Your task to perform on an android device: Play the last video I watched on Youtube Image 0: 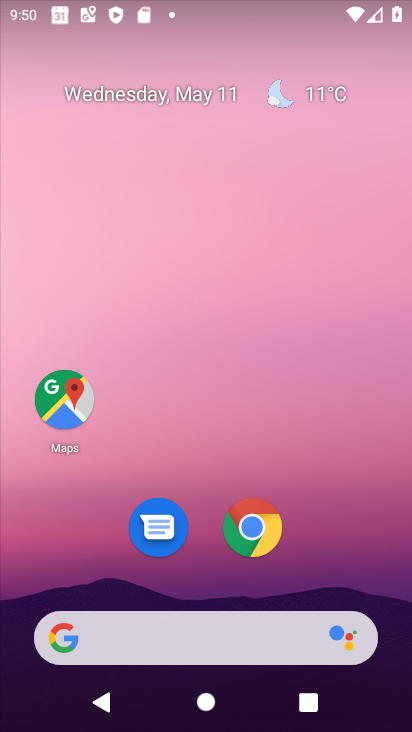
Step 0: drag from (356, 563) to (367, 87)
Your task to perform on an android device: Play the last video I watched on Youtube Image 1: 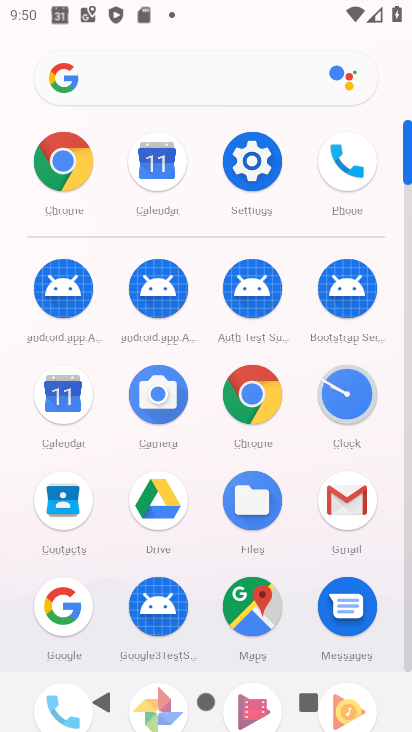
Step 1: drag from (384, 496) to (404, 378)
Your task to perform on an android device: Play the last video I watched on Youtube Image 2: 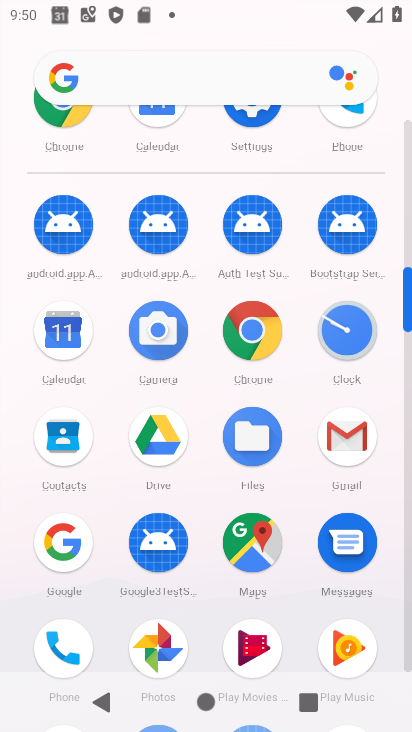
Step 2: drag from (380, 631) to (360, 225)
Your task to perform on an android device: Play the last video I watched on Youtube Image 3: 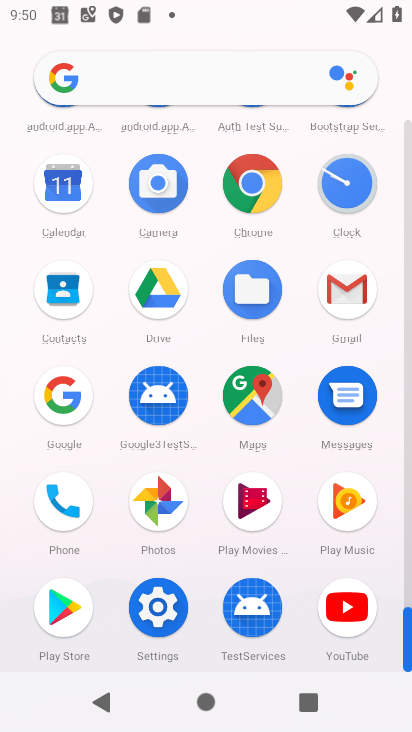
Step 3: click (342, 599)
Your task to perform on an android device: Play the last video I watched on Youtube Image 4: 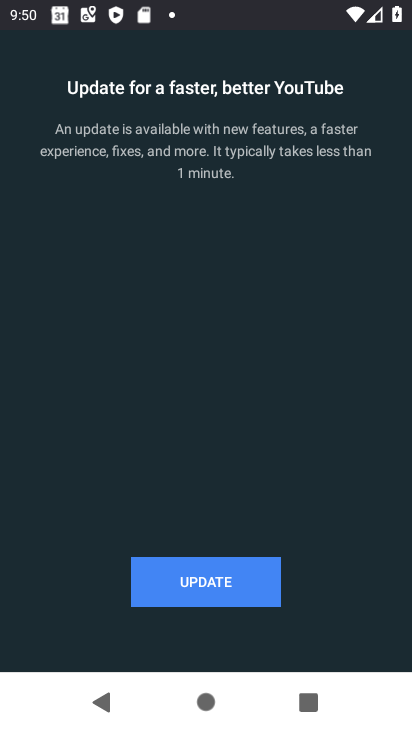
Step 4: click (179, 595)
Your task to perform on an android device: Play the last video I watched on Youtube Image 5: 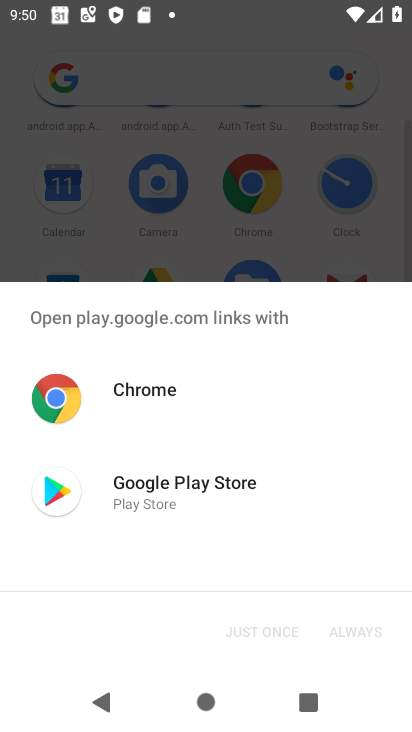
Step 5: click (129, 483)
Your task to perform on an android device: Play the last video I watched on Youtube Image 6: 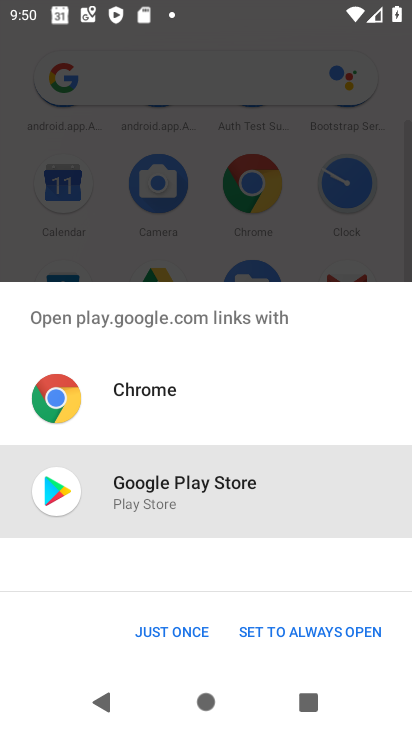
Step 6: click (169, 637)
Your task to perform on an android device: Play the last video I watched on Youtube Image 7: 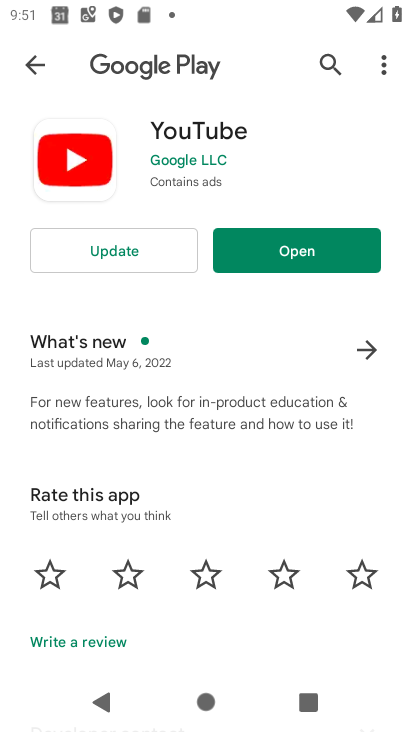
Step 7: click (142, 264)
Your task to perform on an android device: Play the last video I watched on Youtube Image 8: 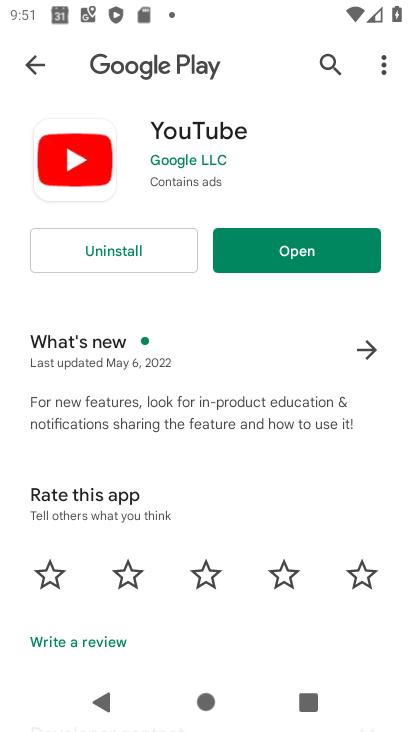
Step 8: click (320, 253)
Your task to perform on an android device: Play the last video I watched on Youtube Image 9: 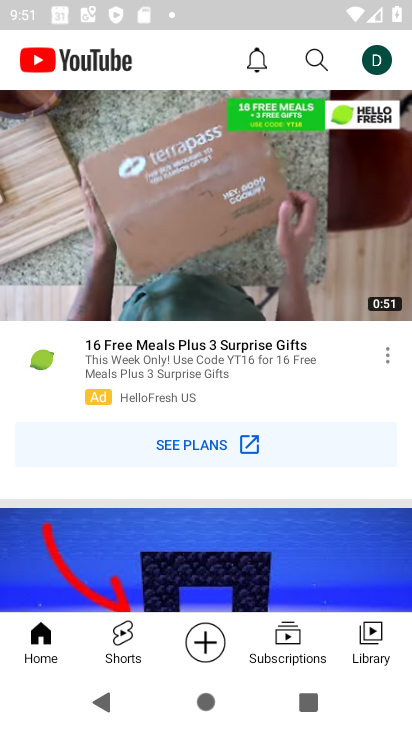
Step 9: click (365, 642)
Your task to perform on an android device: Play the last video I watched on Youtube Image 10: 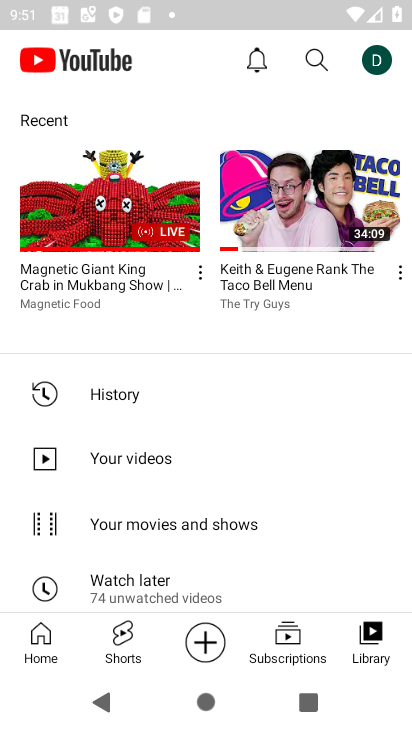
Step 10: click (128, 209)
Your task to perform on an android device: Play the last video I watched on Youtube Image 11: 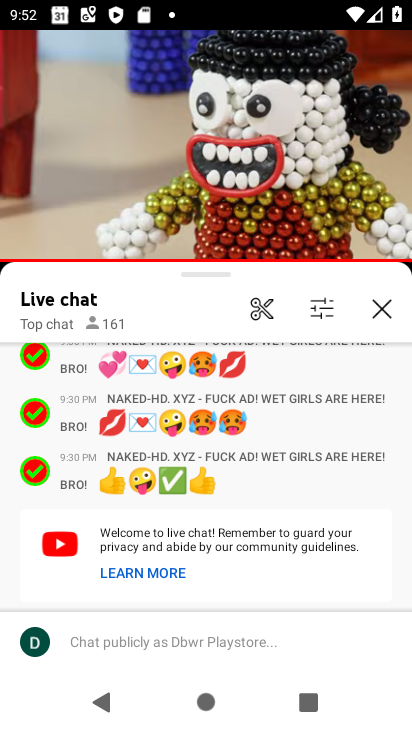
Step 11: task complete